Your task to perform on an android device: choose inbox layout in the gmail app Image 0: 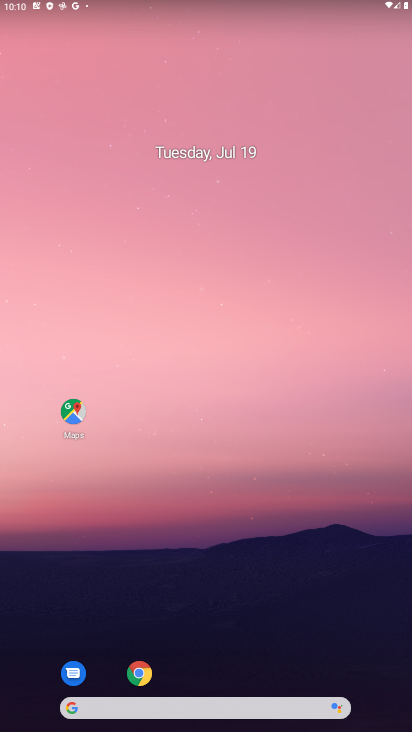
Step 0: drag from (242, 655) to (226, 302)
Your task to perform on an android device: choose inbox layout in the gmail app Image 1: 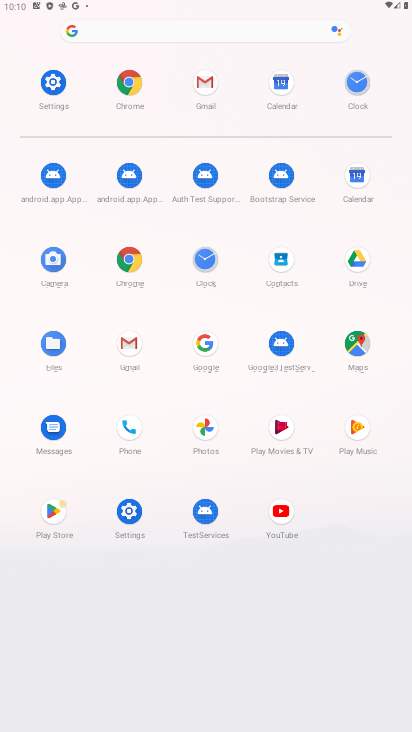
Step 1: click (186, 90)
Your task to perform on an android device: choose inbox layout in the gmail app Image 2: 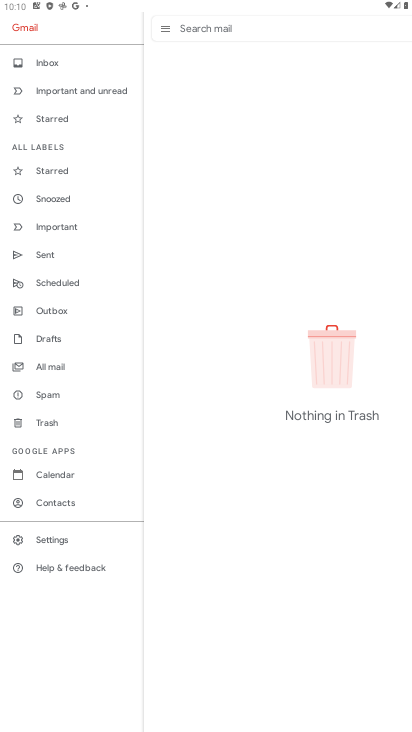
Step 2: click (58, 67)
Your task to perform on an android device: choose inbox layout in the gmail app Image 3: 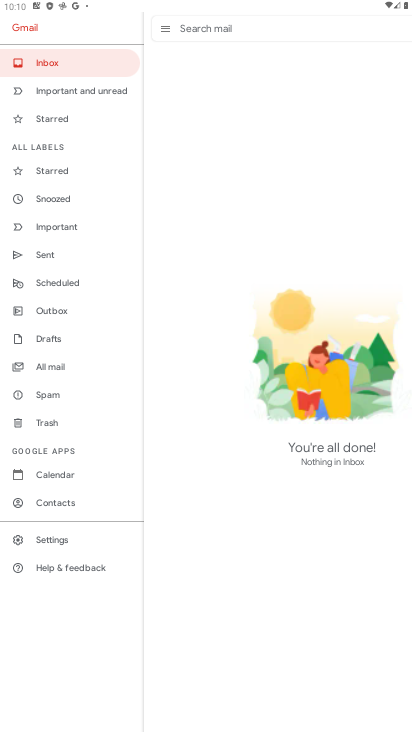
Step 3: task complete